Your task to perform on an android device: turn on sleep mode Image 0: 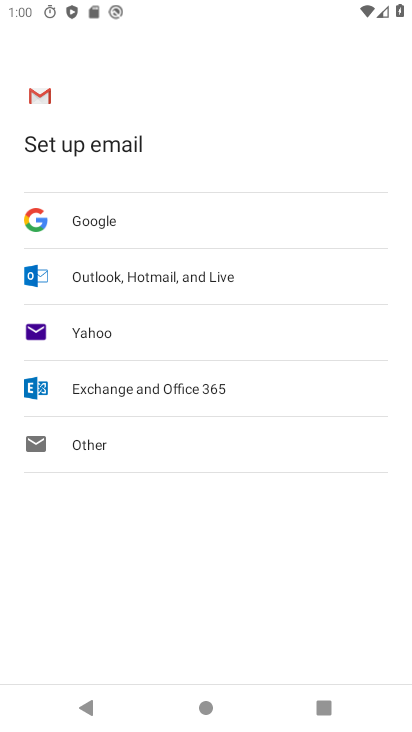
Step 0: press home button
Your task to perform on an android device: turn on sleep mode Image 1: 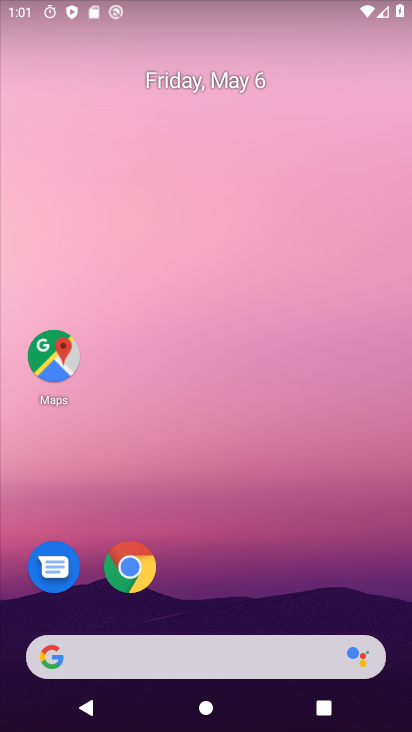
Step 1: drag from (287, 696) to (266, 266)
Your task to perform on an android device: turn on sleep mode Image 2: 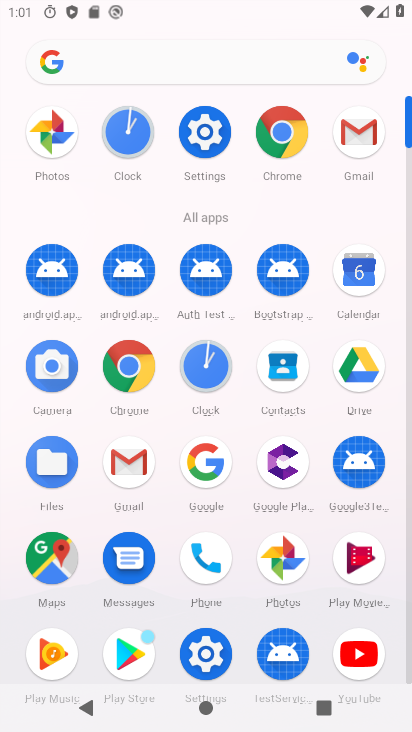
Step 2: click (205, 163)
Your task to perform on an android device: turn on sleep mode Image 3: 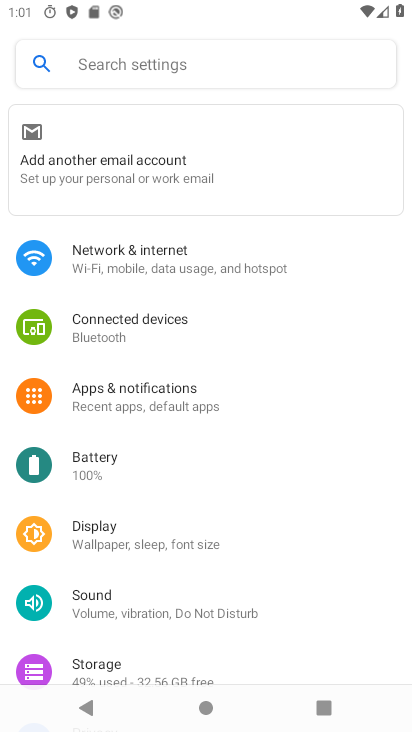
Step 3: click (180, 72)
Your task to perform on an android device: turn on sleep mode Image 4: 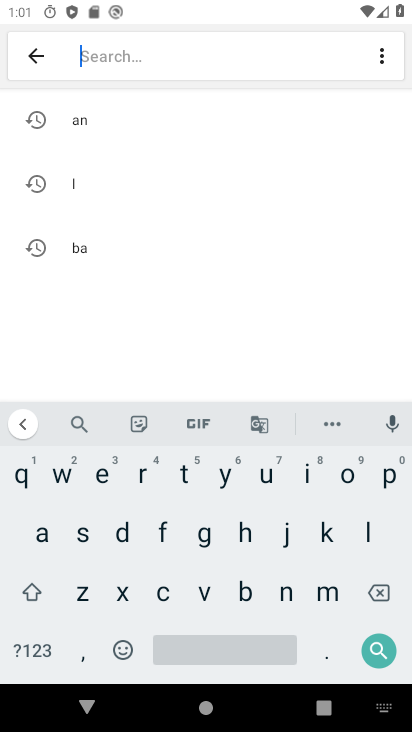
Step 4: click (80, 543)
Your task to perform on an android device: turn on sleep mode Image 5: 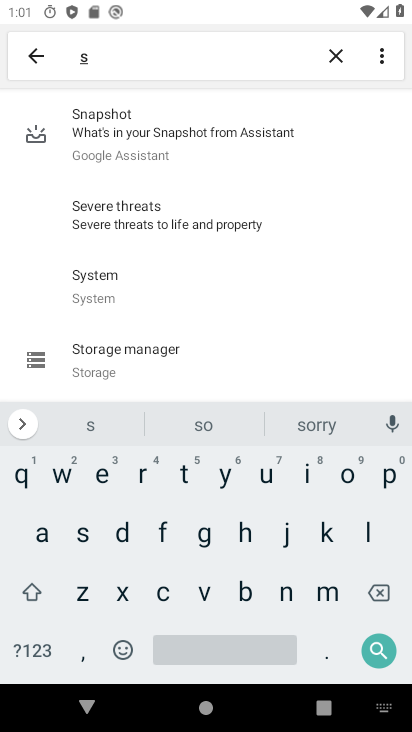
Step 5: click (365, 533)
Your task to perform on an android device: turn on sleep mode Image 6: 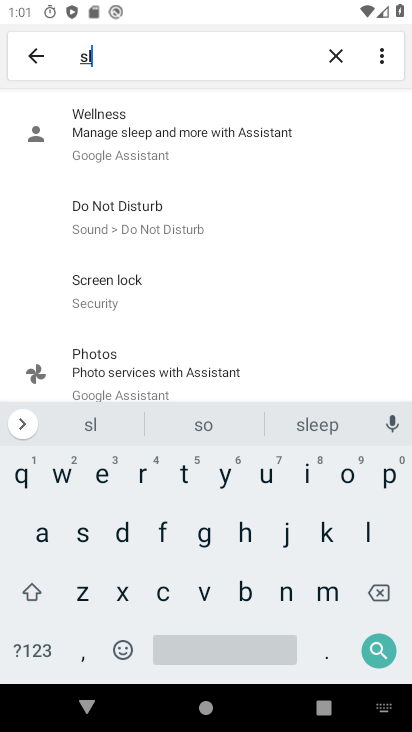
Step 6: click (147, 224)
Your task to perform on an android device: turn on sleep mode Image 7: 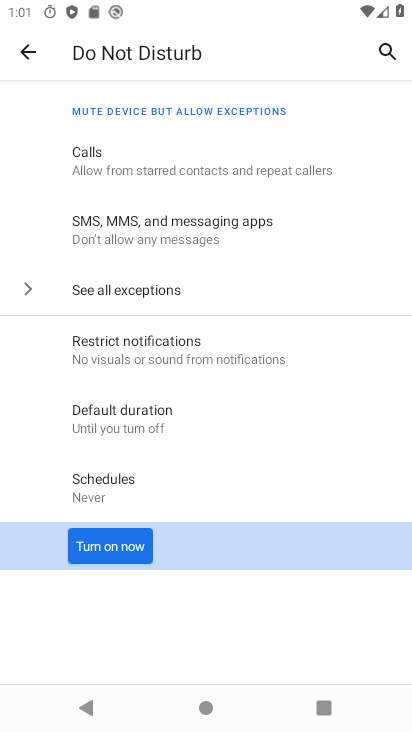
Step 7: click (144, 545)
Your task to perform on an android device: turn on sleep mode Image 8: 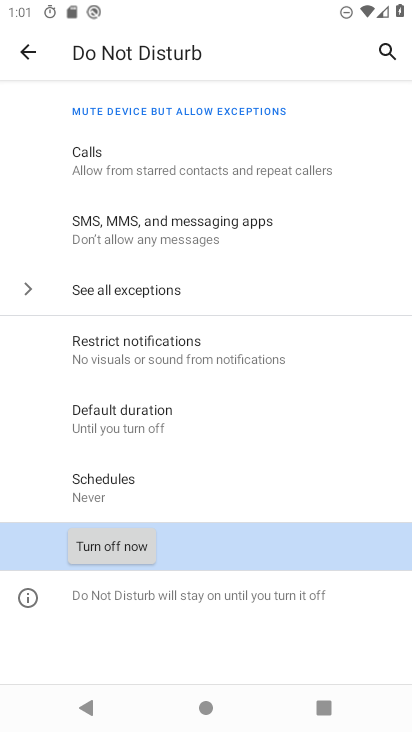
Step 8: task complete